Your task to perform on an android device: Open settings Image 0: 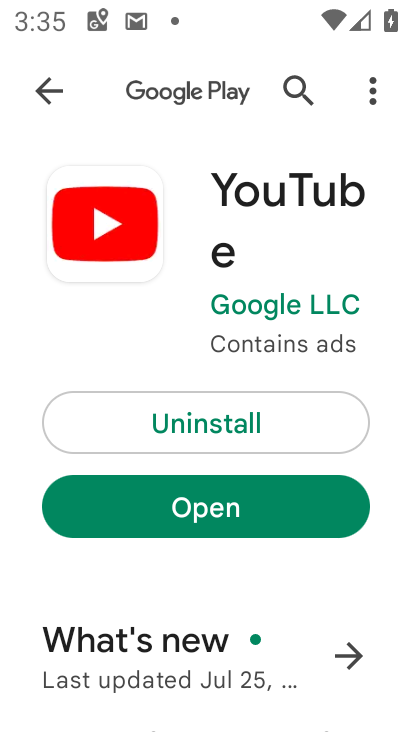
Step 0: press home button
Your task to perform on an android device: Open settings Image 1: 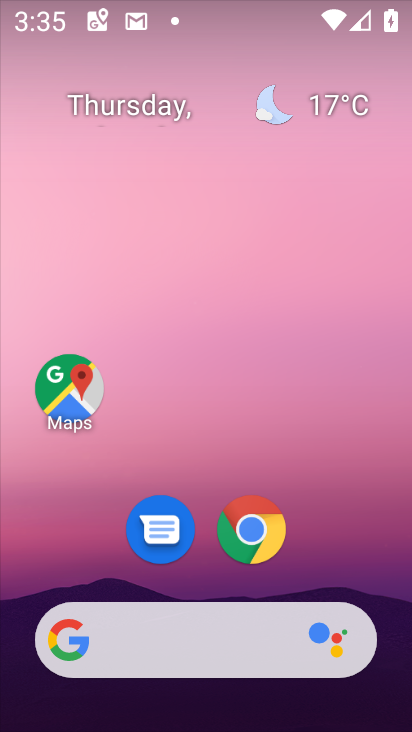
Step 1: drag from (176, 622) to (121, 180)
Your task to perform on an android device: Open settings Image 2: 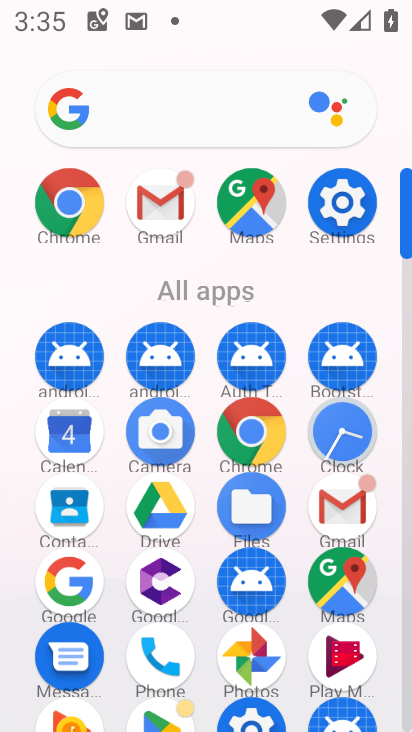
Step 2: click (320, 213)
Your task to perform on an android device: Open settings Image 3: 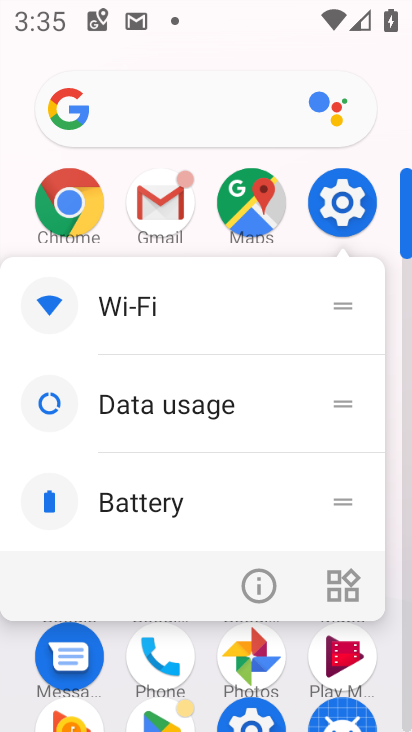
Step 3: click (331, 206)
Your task to perform on an android device: Open settings Image 4: 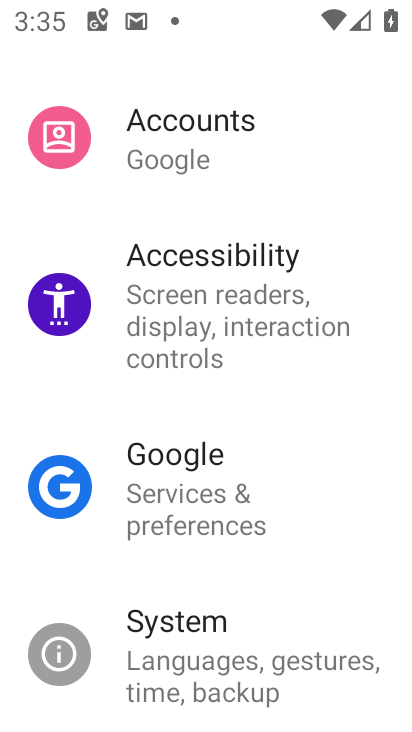
Step 4: task complete